Your task to perform on an android device: Open Youtube and go to the subscriptions tab Image 0: 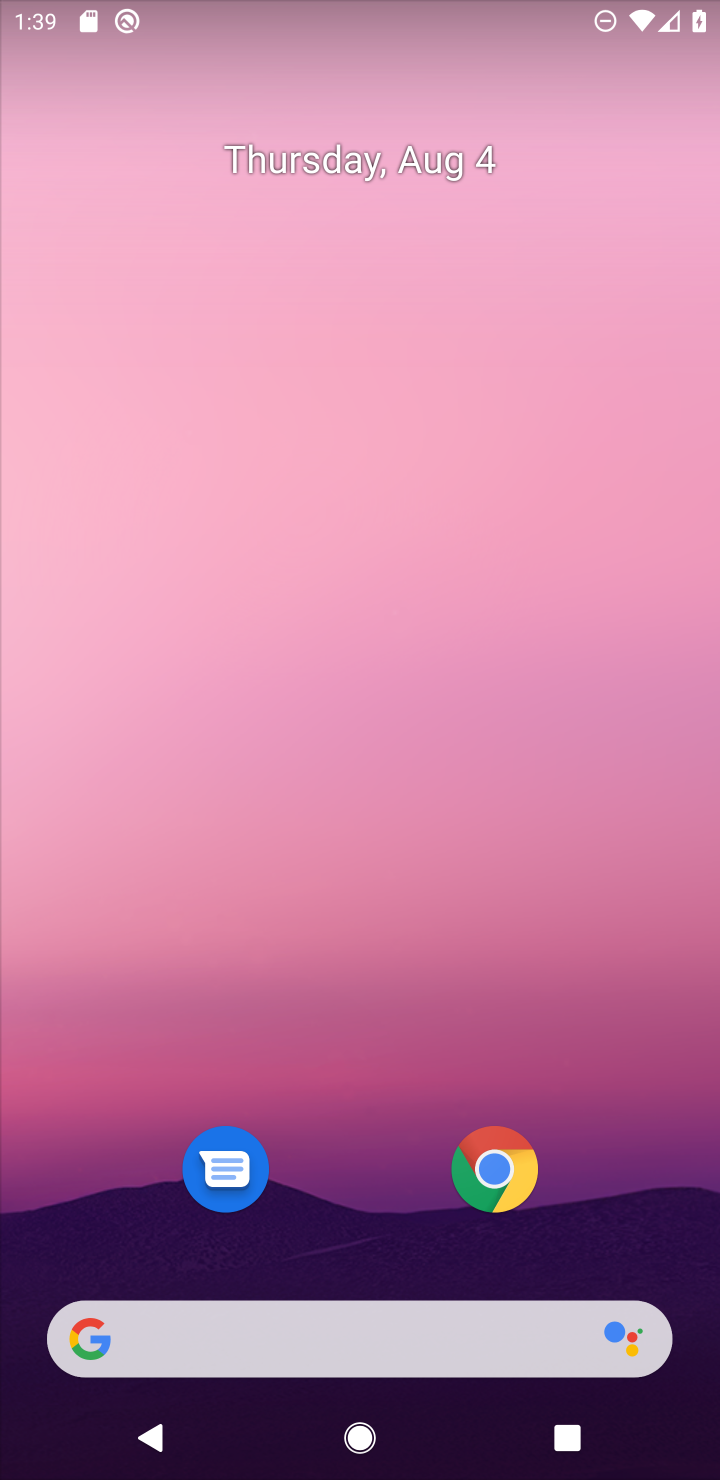
Step 0: drag from (373, 1179) to (410, 7)
Your task to perform on an android device: Open Youtube and go to the subscriptions tab Image 1: 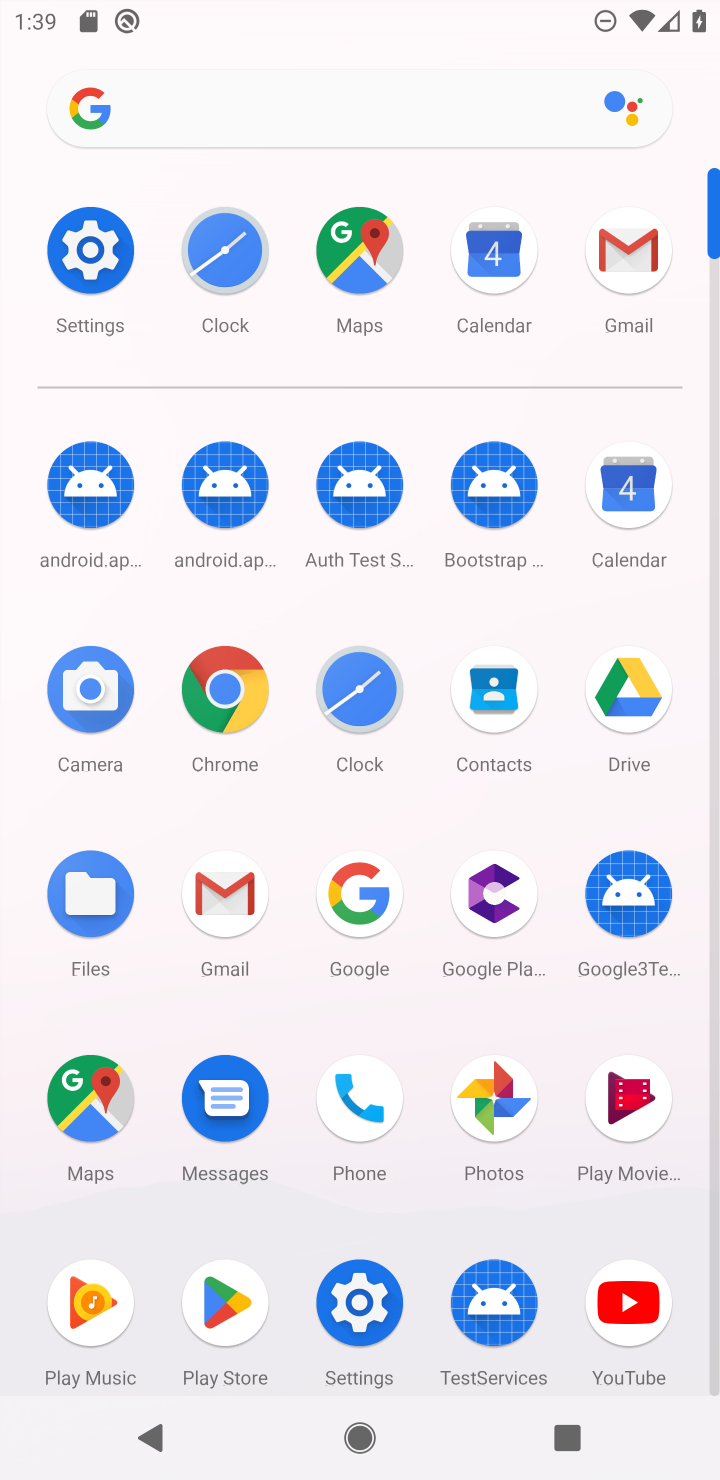
Step 1: click (619, 1308)
Your task to perform on an android device: Open Youtube and go to the subscriptions tab Image 2: 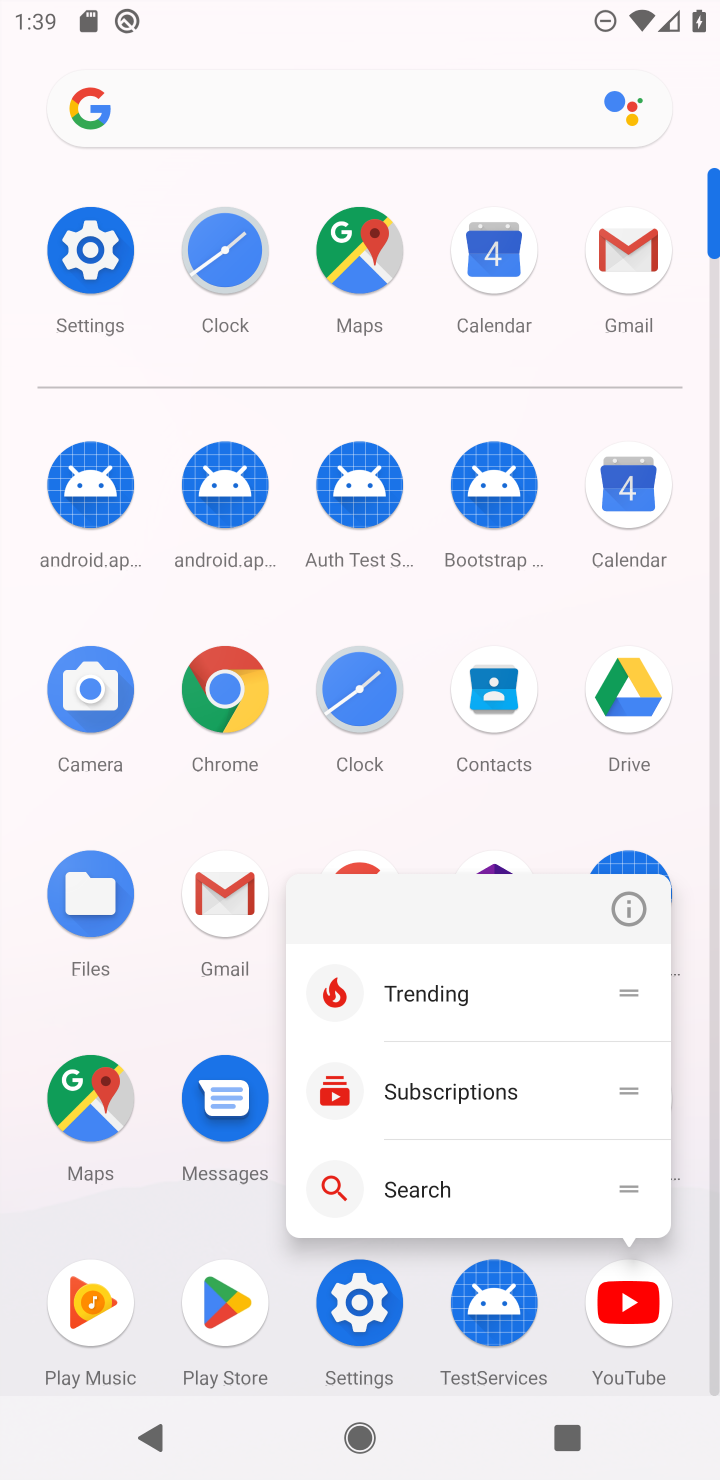
Step 2: click (619, 1308)
Your task to perform on an android device: Open Youtube and go to the subscriptions tab Image 3: 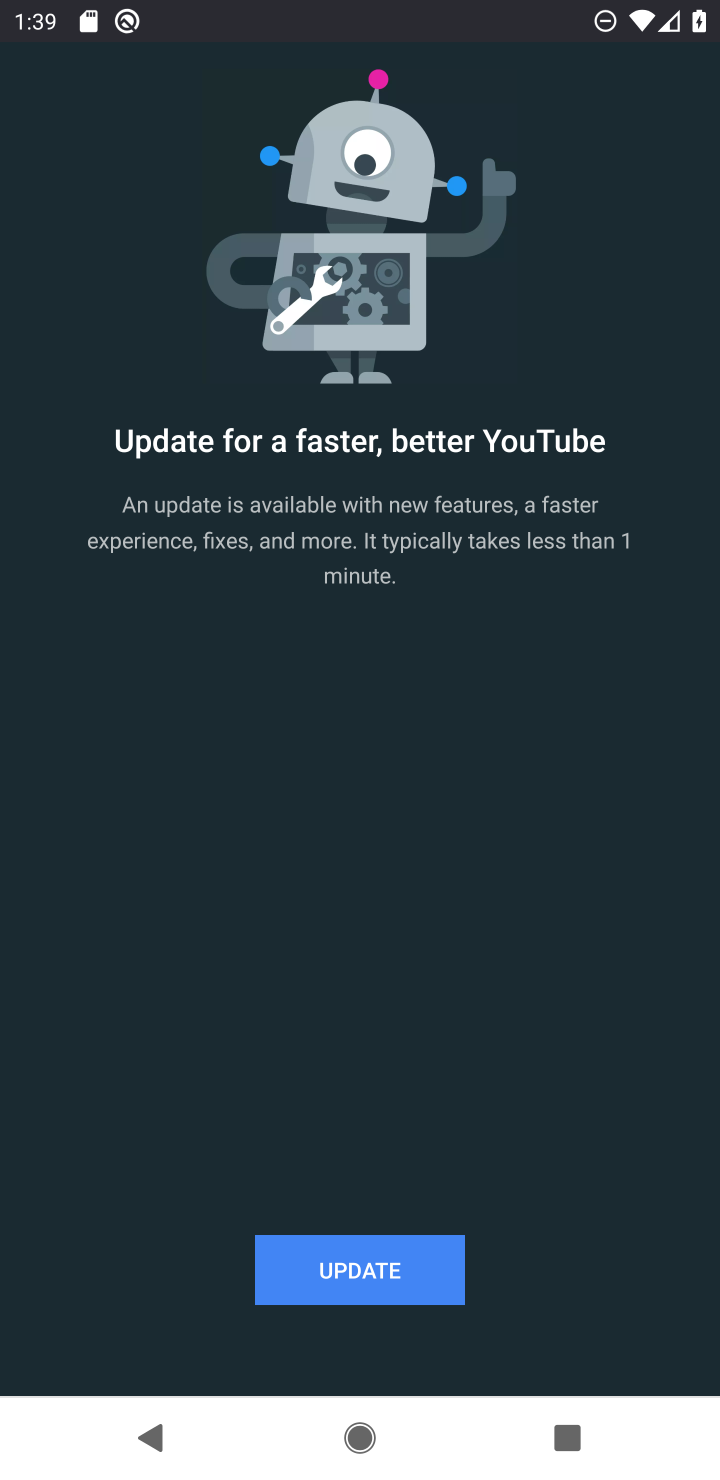
Step 3: click (391, 1280)
Your task to perform on an android device: Open Youtube and go to the subscriptions tab Image 4: 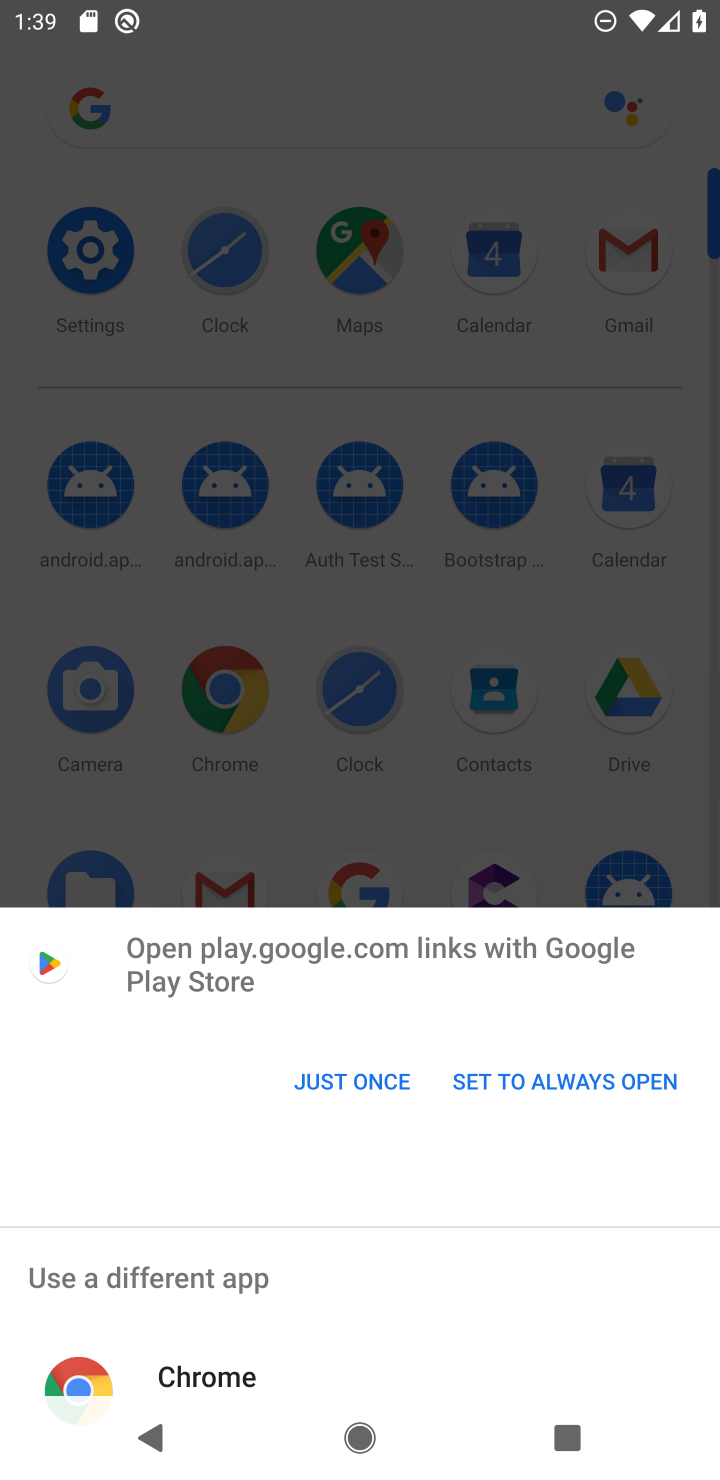
Step 4: click (324, 1027)
Your task to perform on an android device: Open Youtube and go to the subscriptions tab Image 5: 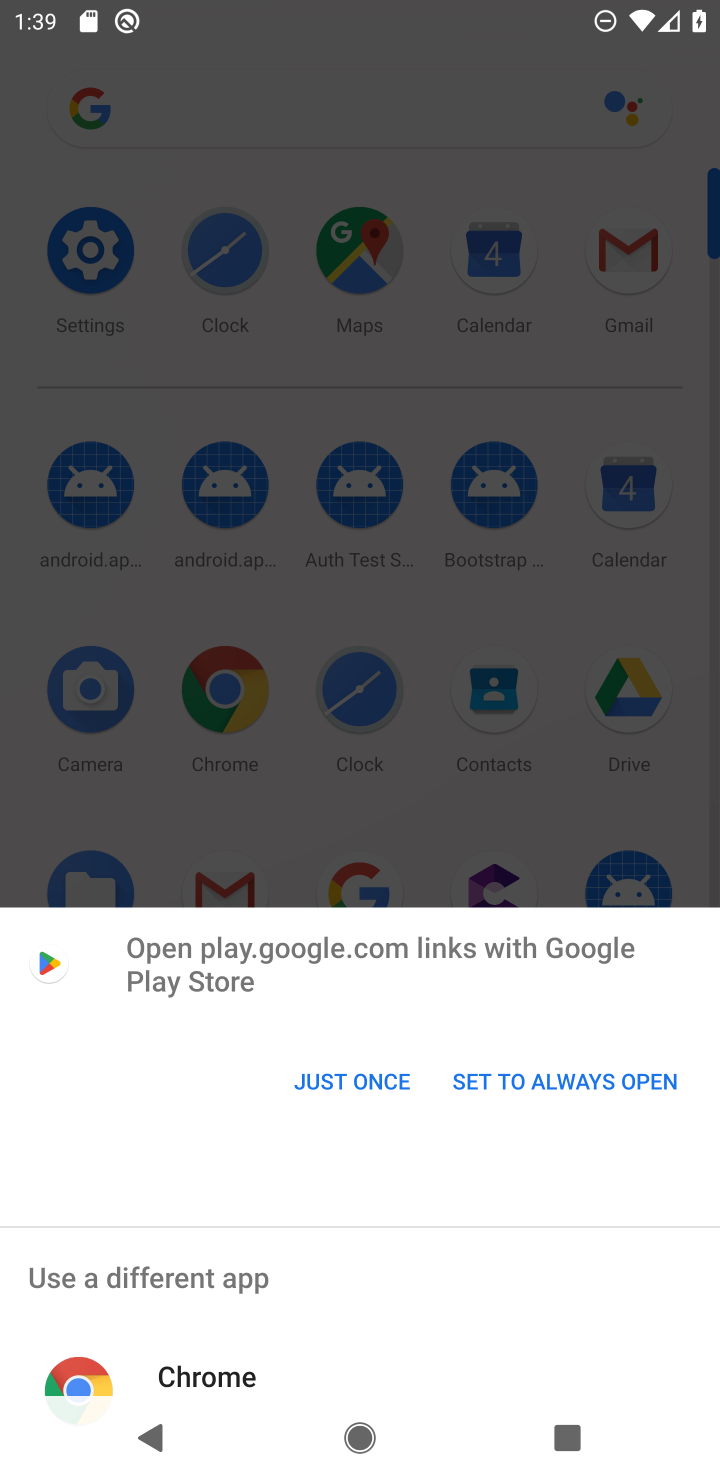
Step 5: click (319, 1083)
Your task to perform on an android device: Open Youtube and go to the subscriptions tab Image 6: 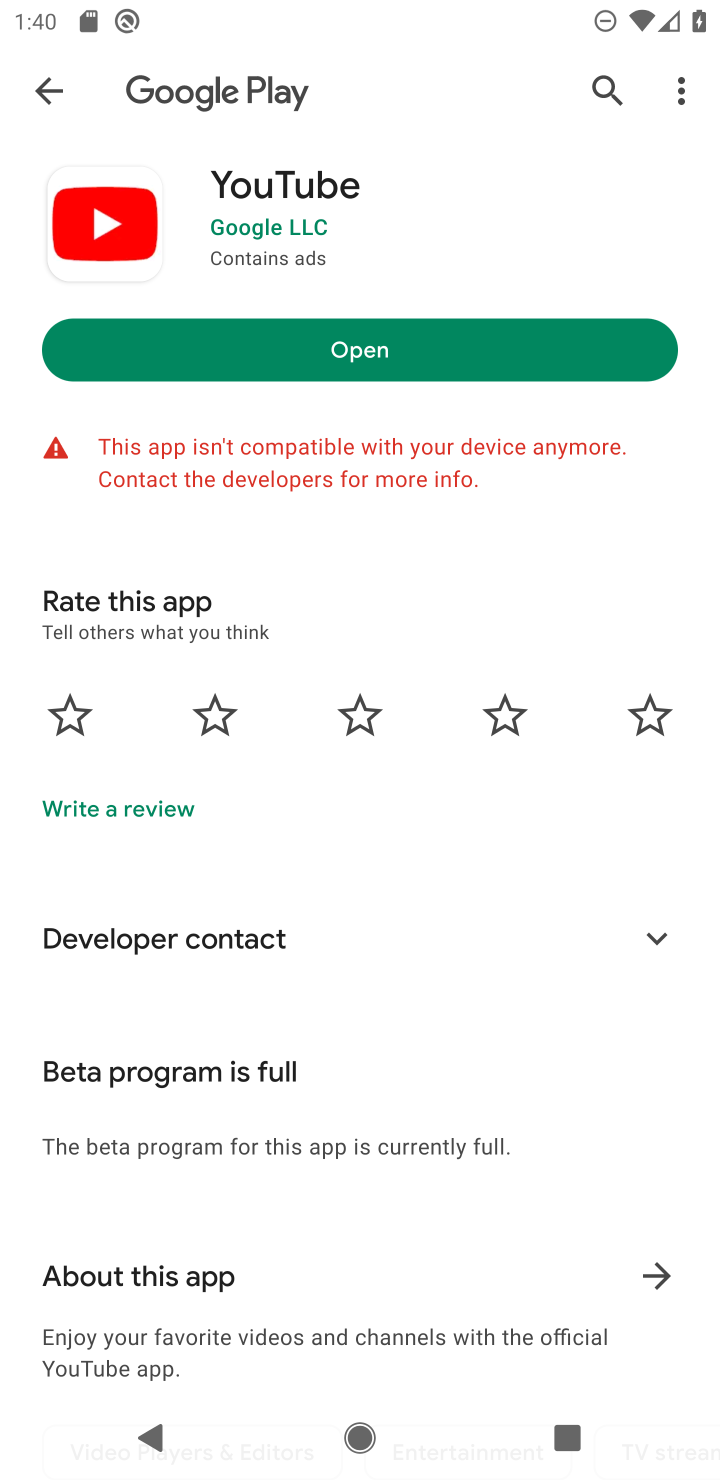
Step 6: task complete